Your task to perform on an android device: turn on wifi Image 0: 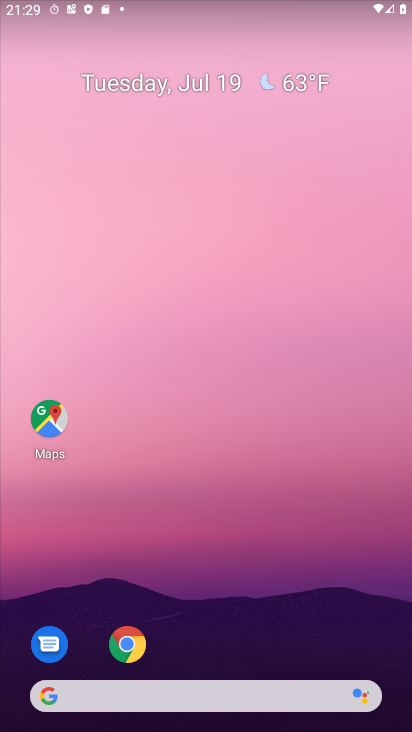
Step 0: drag from (247, 642) to (202, 115)
Your task to perform on an android device: turn on wifi Image 1: 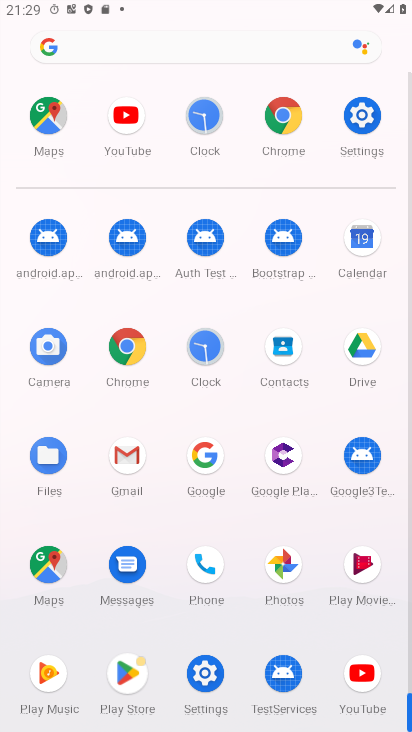
Step 1: click (370, 118)
Your task to perform on an android device: turn on wifi Image 2: 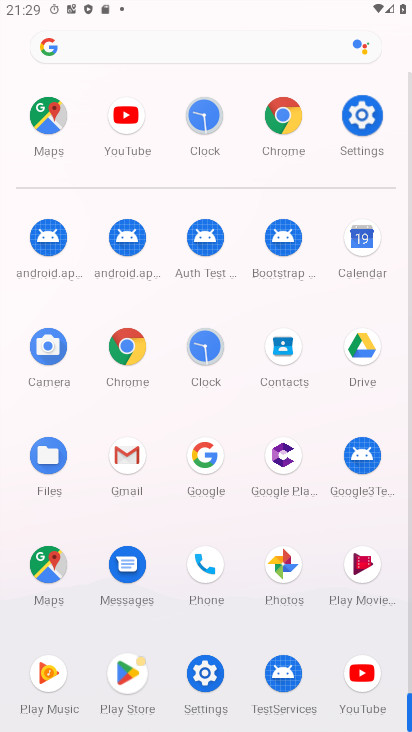
Step 2: click (370, 117)
Your task to perform on an android device: turn on wifi Image 3: 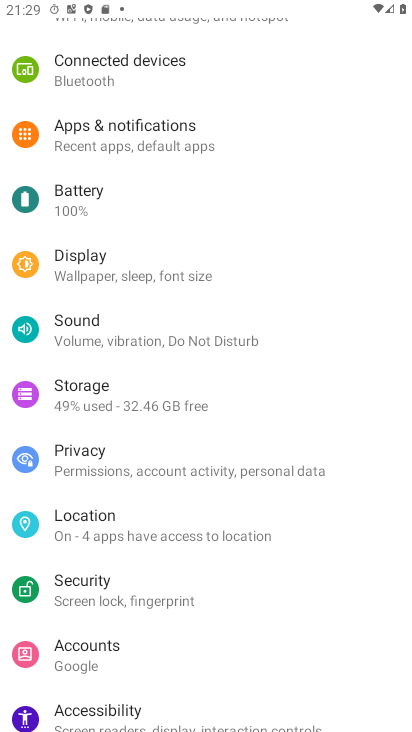
Step 3: drag from (146, 179) to (183, 371)
Your task to perform on an android device: turn on wifi Image 4: 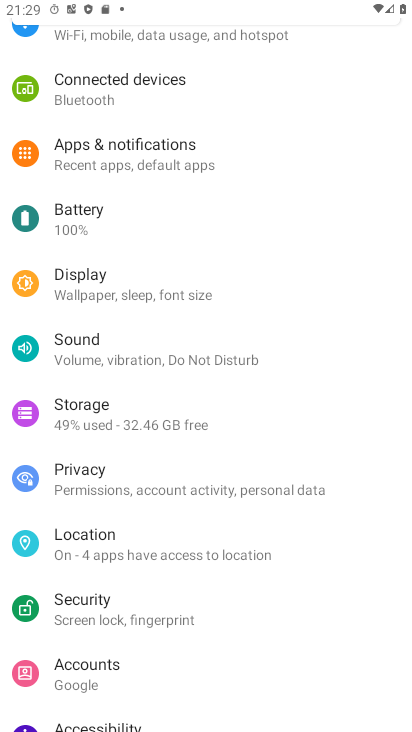
Step 4: drag from (153, 357) to (179, 493)
Your task to perform on an android device: turn on wifi Image 5: 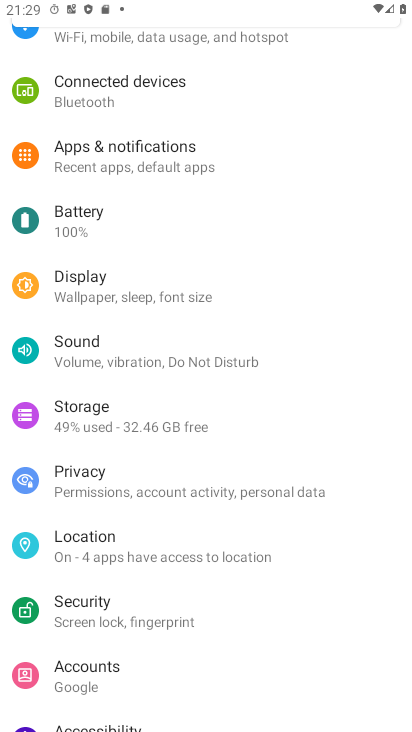
Step 5: drag from (110, 131) to (160, 423)
Your task to perform on an android device: turn on wifi Image 6: 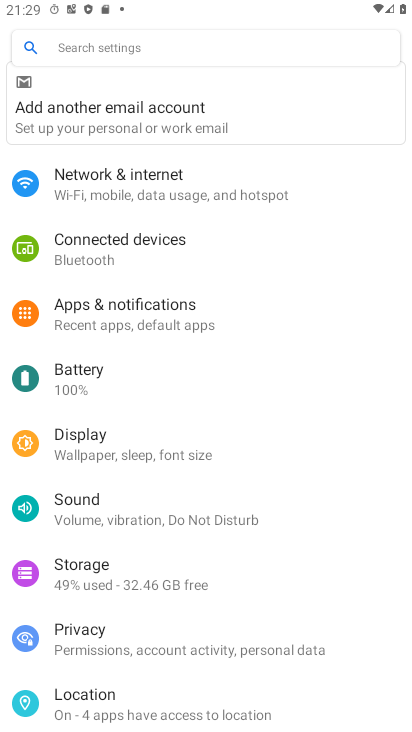
Step 6: drag from (166, 146) to (239, 489)
Your task to perform on an android device: turn on wifi Image 7: 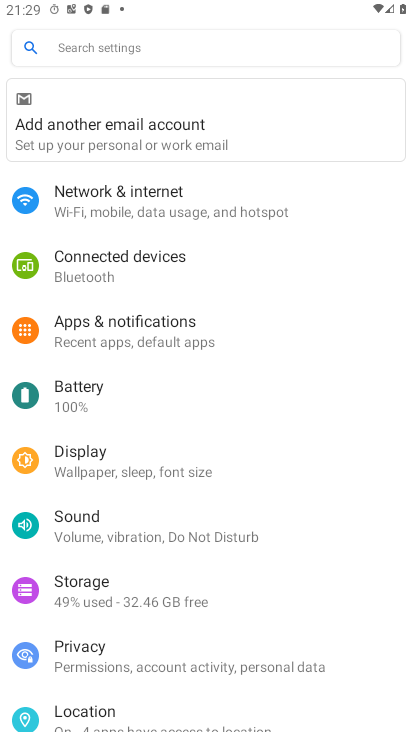
Step 7: click (127, 201)
Your task to perform on an android device: turn on wifi Image 8: 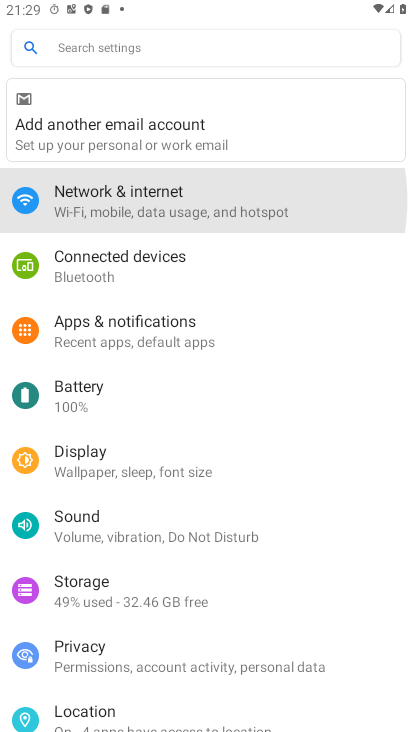
Step 8: click (125, 200)
Your task to perform on an android device: turn on wifi Image 9: 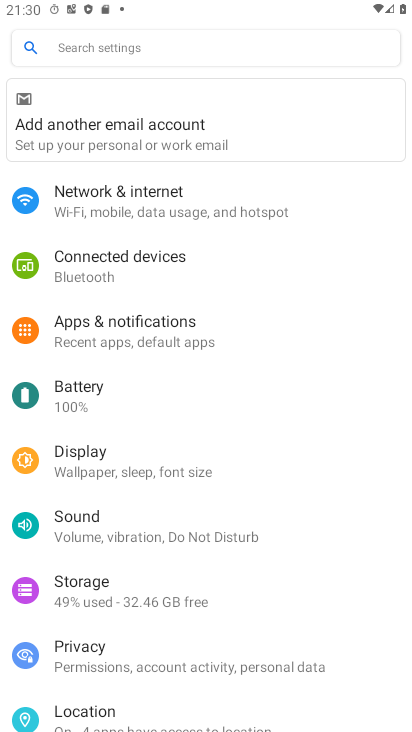
Step 9: click (125, 199)
Your task to perform on an android device: turn on wifi Image 10: 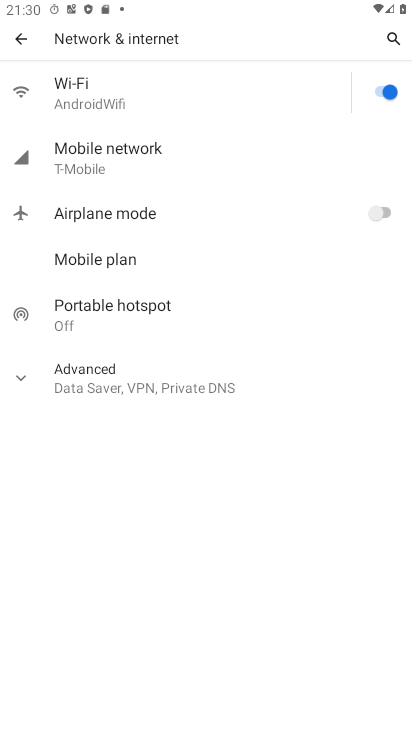
Step 10: task complete